Your task to perform on an android device: add a label to a message in the gmail app Image 0: 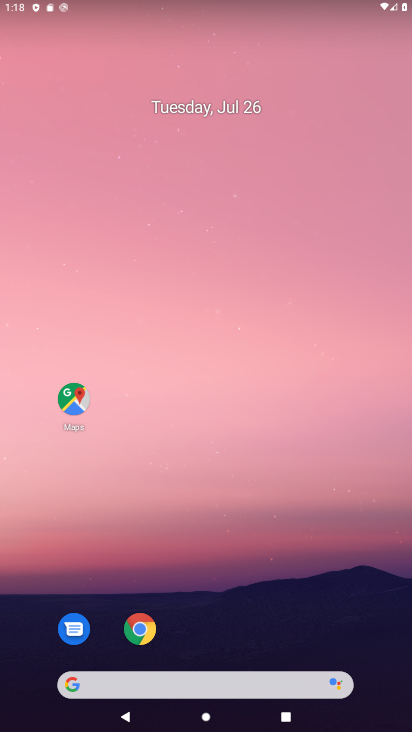
Step 0: drag from (156, 701) to (215, 43)
Your task to perform on an android device: add a label to a message in the gmail app Image 1: 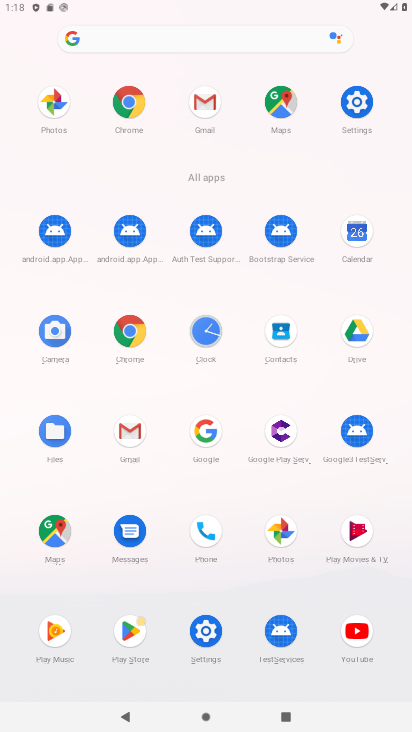
Step 1: click (138, 432)
Your task to perform on an android device: add a label to a message in the gmail app Image 2: 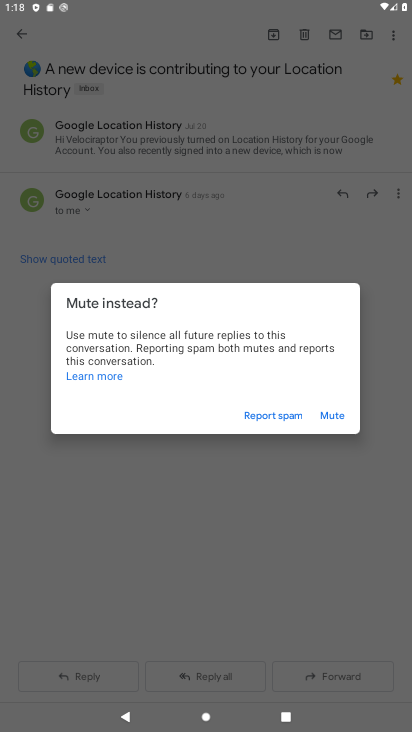
Step 2: click (378, 400)
Your task to perform on an android device: add a label to a message in the gmail app Image 3: 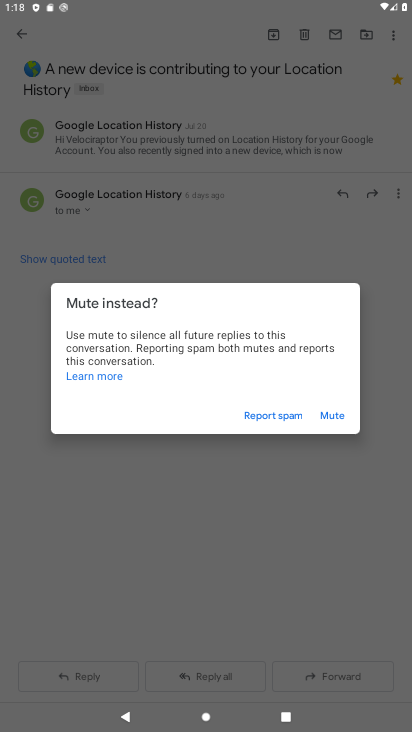
Step 3: press back button
Your task to perform on an android device: add a label to a message in the gmail app Image 4: 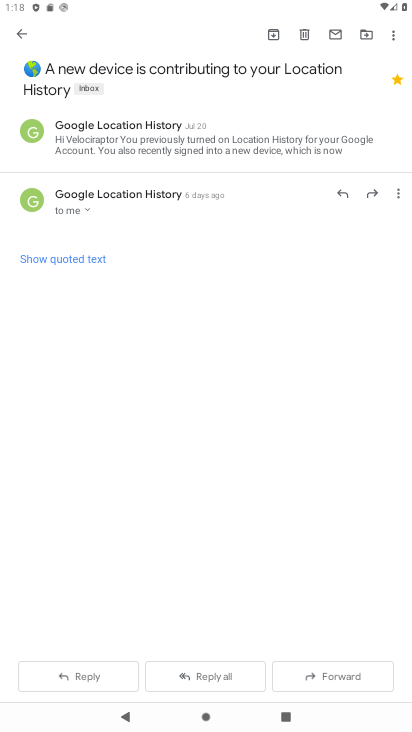
Step 4: press back button
Your task to perform on an android device: add a label to a message in the gmail app Image 5: 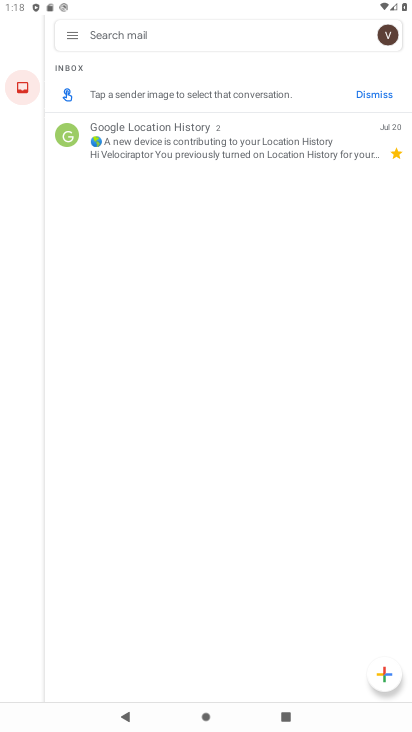
Step 5: click (344, 134)
Your task to perform on an android device: add a label to a message in the gmail app Image 6: 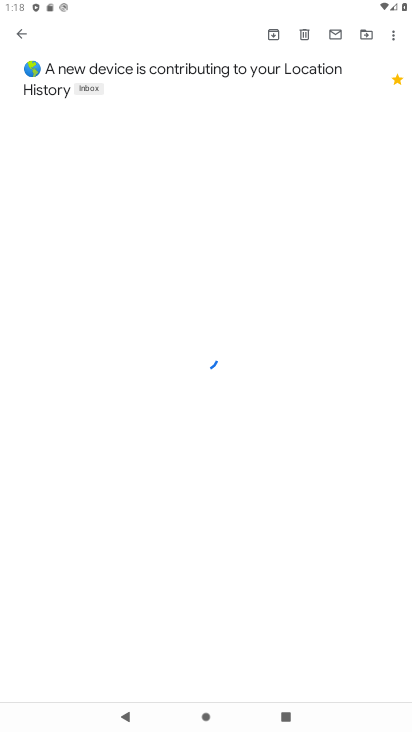
Step 6: click (404, 36)
Your task to perform on an android device: add a label to a message in the gmail app Image 7: 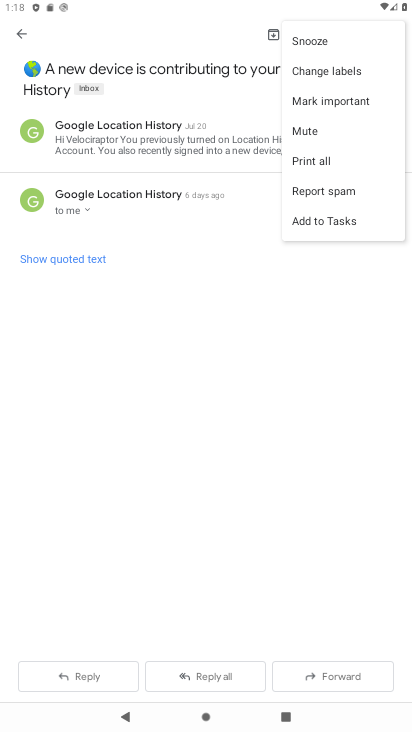
Step 7: click (311, 66)
Your task to perform on an android device: add a label to a message in the gmail app Image 8: 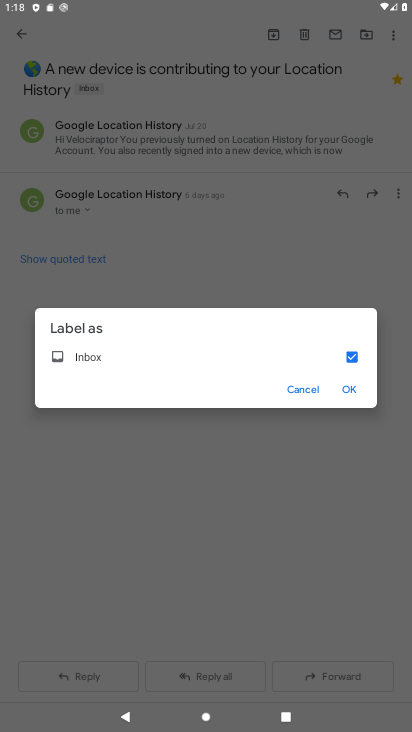
Step 8: click (356, 392)
Your task to perform on an android device: add a label to a message in the gmail app Image 9: 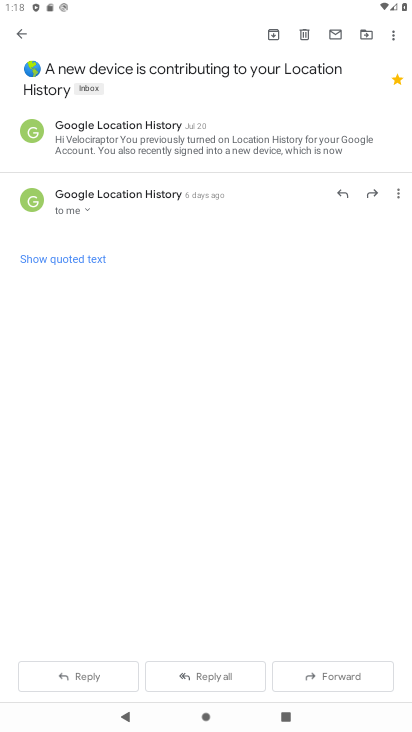
Step 9: task complete